Your task to perform on an android device: allow cookies in the chrome app Image 0: 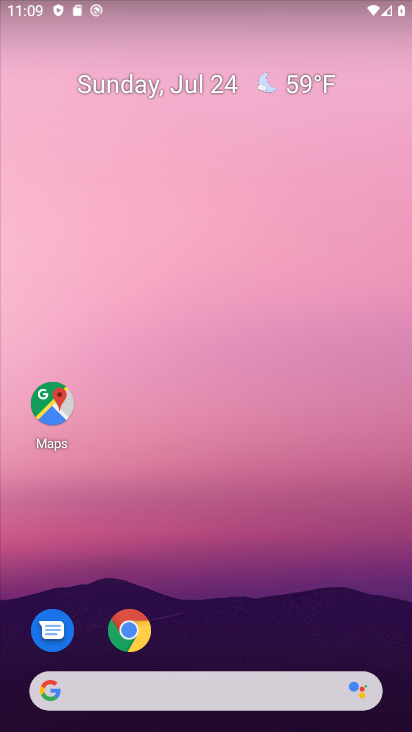
Step 0: press home button
Your task to perform on an android device: allow cookies in the chrome app Image 1: 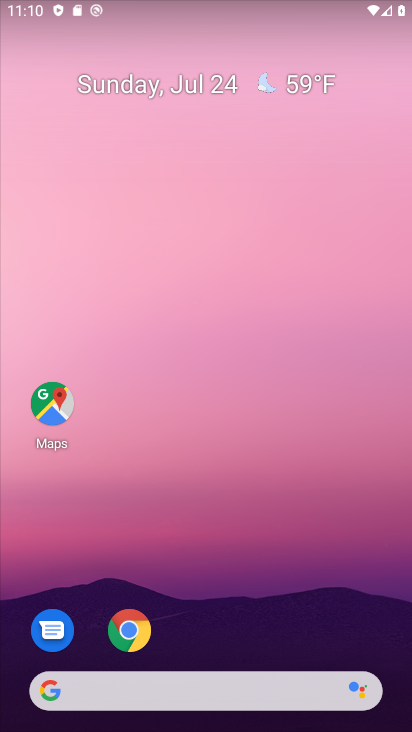
Step 1: click (115, 629)
Your task to perform on an android device: allow cookies in the chrome app Image 2: 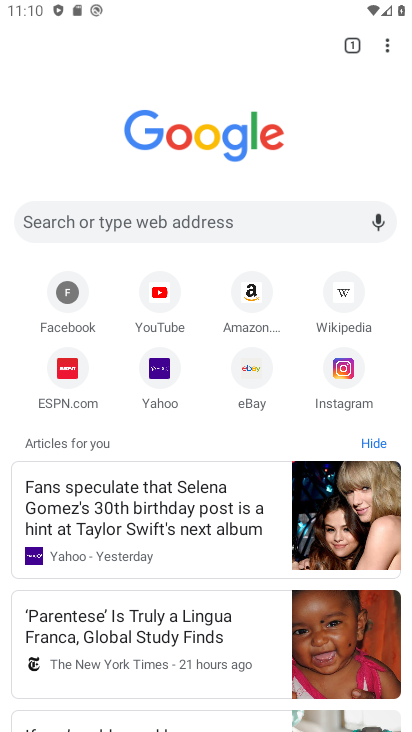
Step 2: click (384, 39)
Your task to perform on an android device: allow cookies in the chrome app Image 3: 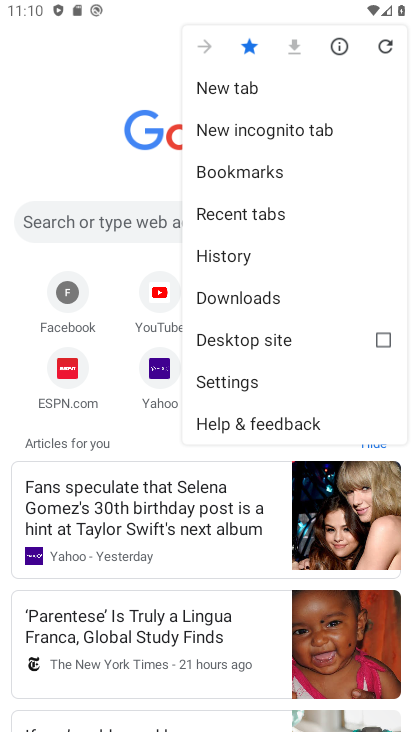
Step 3: click (242, 371)
Your task to perform on an android device: allow cookies in the chrome app Image 4: 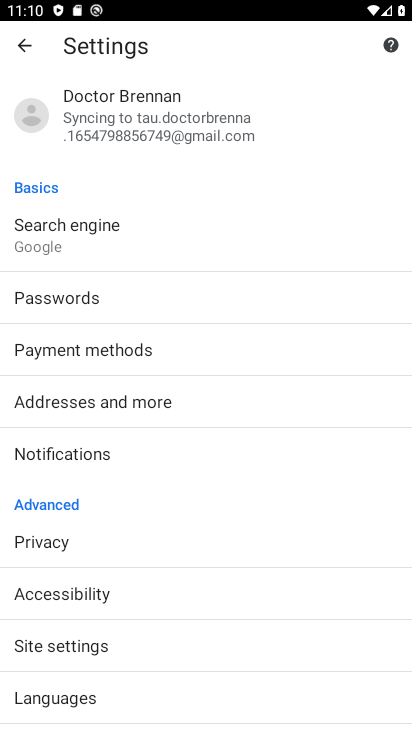
Step 4: click (132, 649)
Your task to perform on an android device: allow cookies in the chrome app Image 5: 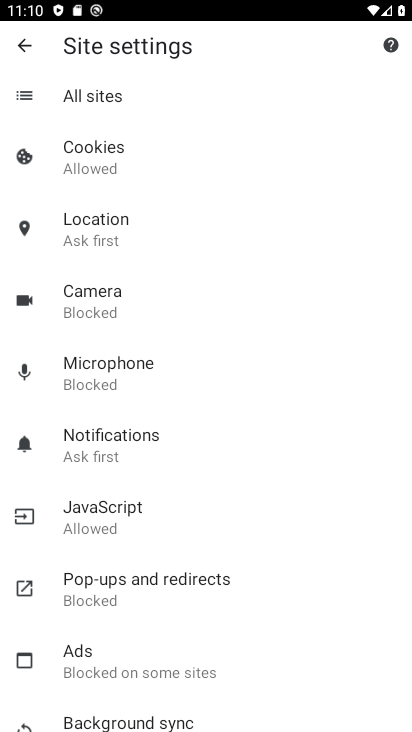
Step 5: click (125, 153)
Your task to perform on an android device: allow cookies in the chrome app Image 6: 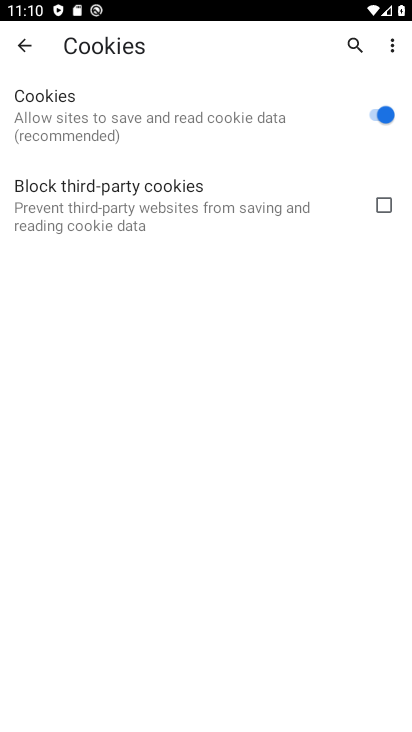
Step 6: task complete